Your task to perform on an android device: Go to notification settings Image 0: 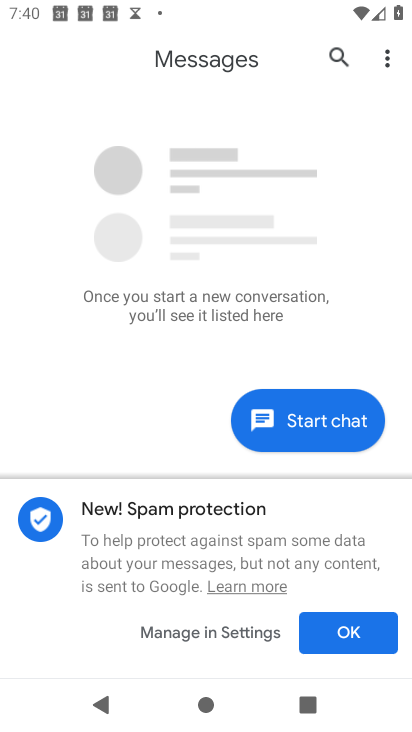
Step 0: press home button
Your task to perform on an android device: Go to notification settings Image 1: 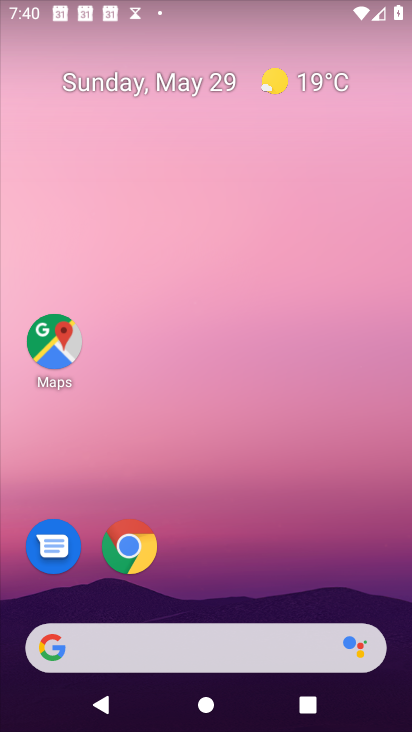
Step 1: drag from (228, 480) to (108, 13)
Your task to perform on an android device: Go to notification settings Image 2: 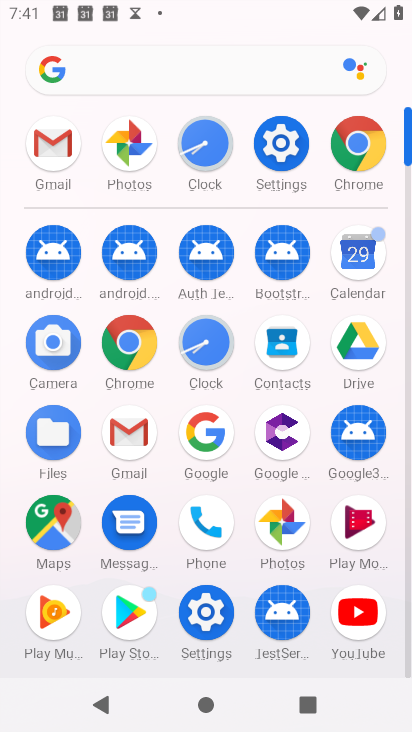
Step 2: click (294, 149)
Your task to perform on an android device: Go to notification settings Image 3: 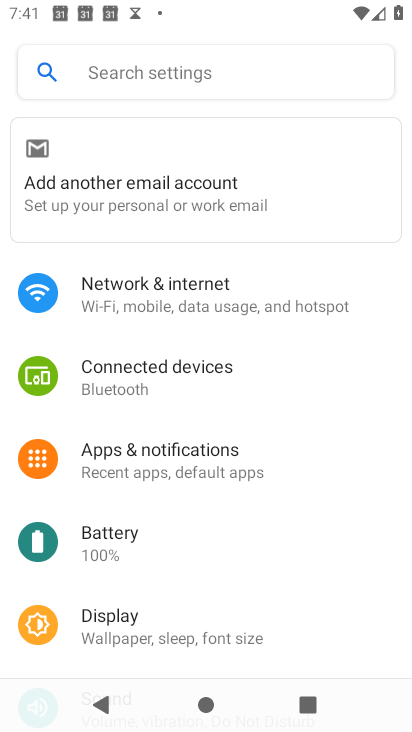
Step 3: click (162, 452)
Your task to perform on an android device: Go to notification settings Image 4: 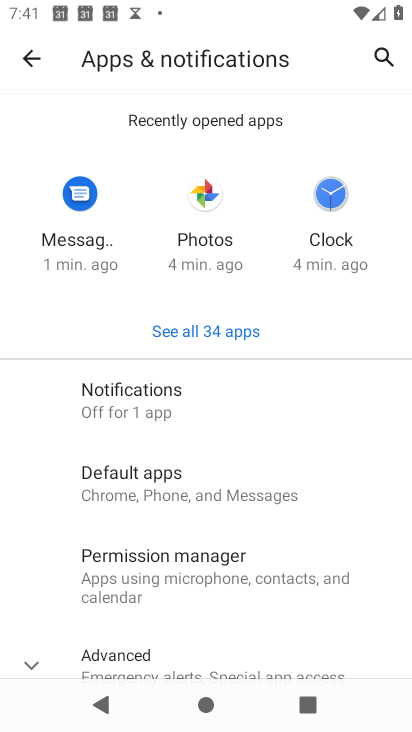
Step 4: click (145, 399)
Your task to perform on an android device: Go to notification settings Image 5: 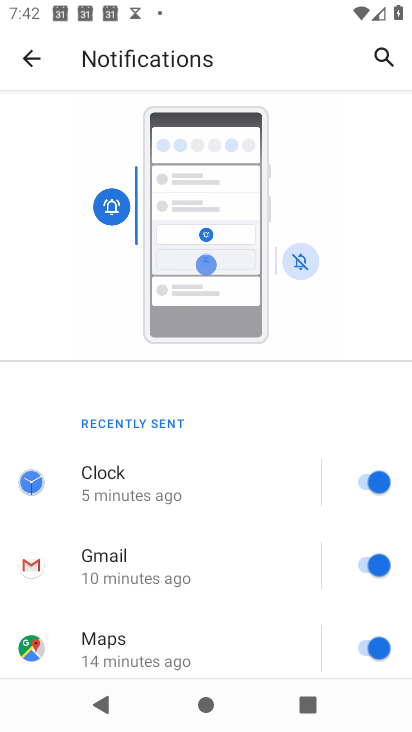
Step 5: task complete